Your task to perform on an android device: Show me popular games on the Play Store Image 0: 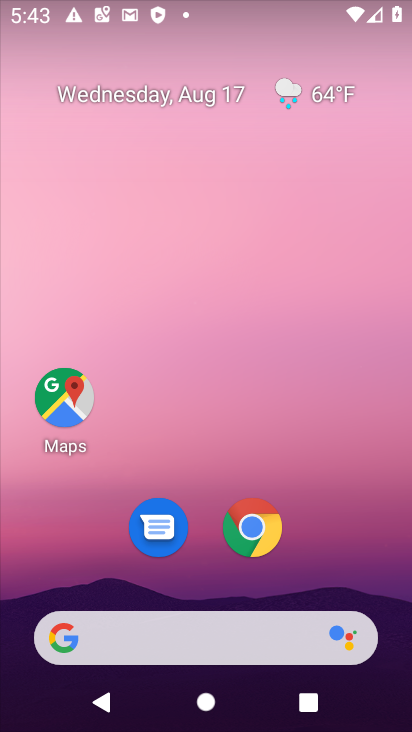
Step 0: drag from (184, 605) to (158, 96)
Your task to perform on an android device: Show me popular games on the Play Store Image 1: 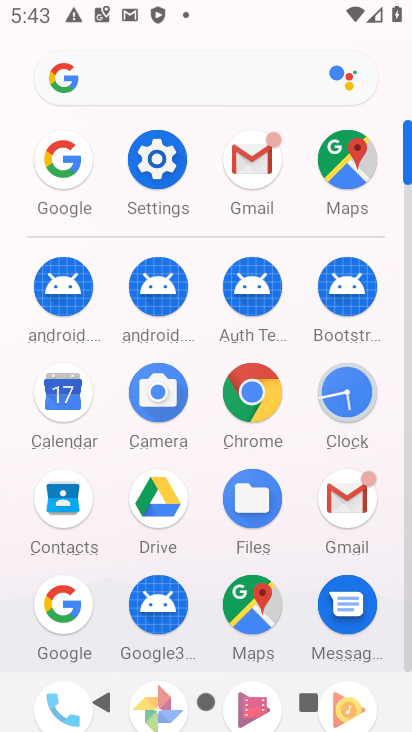
Step 1: drag from (197, 654) to (176, 235)
Your task to perform on an android device: Show me popular games on the Play Store Image 2: 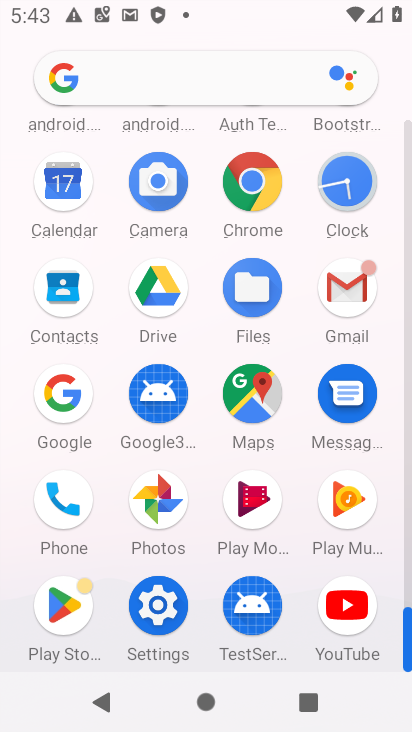
Step 2: click (65, 609)
Your task to perform on an android device: Show me popular games on the Play Store Image 3: 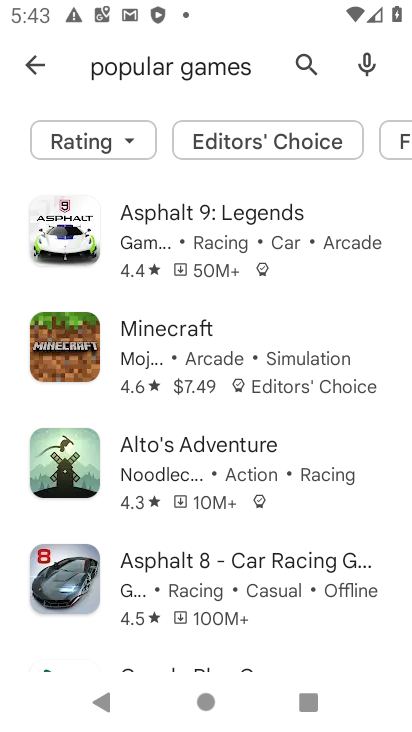
Step 3: task complete